Your task to perform on an android device: open chrome privacy settings Image 0: 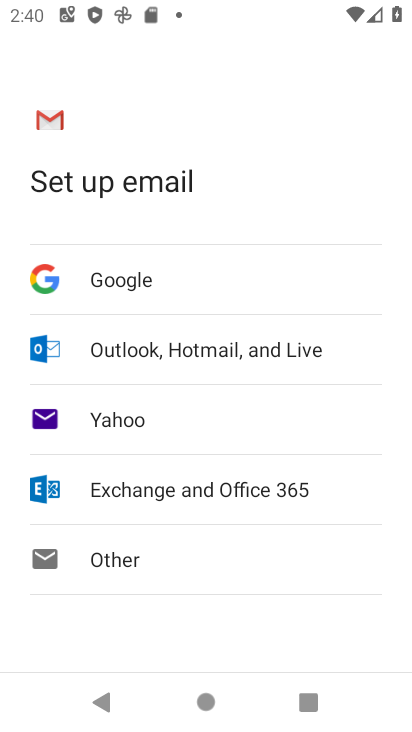
Step 0: press home button
Your task to perform on an android device: open chrome privacy settings Image 1: 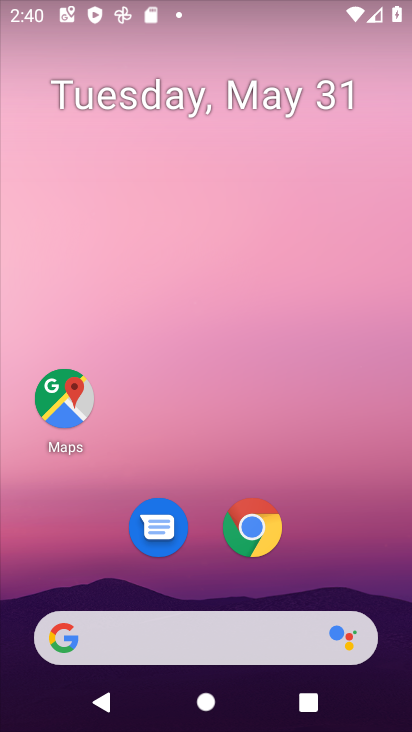
Step 1: drag from (357, 432) to (291, 90)
Your task to perform on an android device: open chrome privacy settings Image 2: 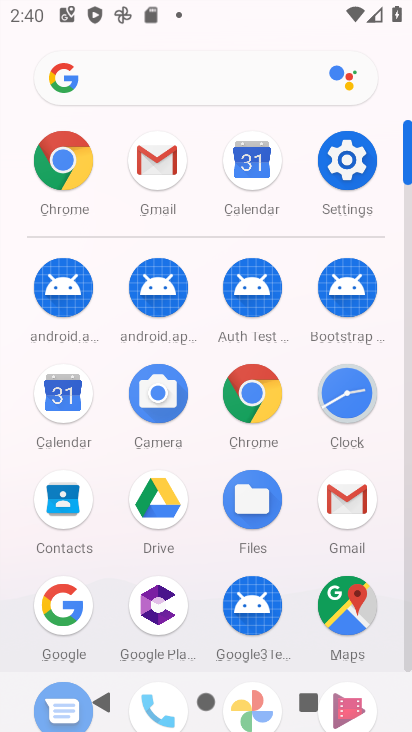
Step 2: click (354, 167)
Your task to perform on an android device: open chrome privacy settings Image 3: 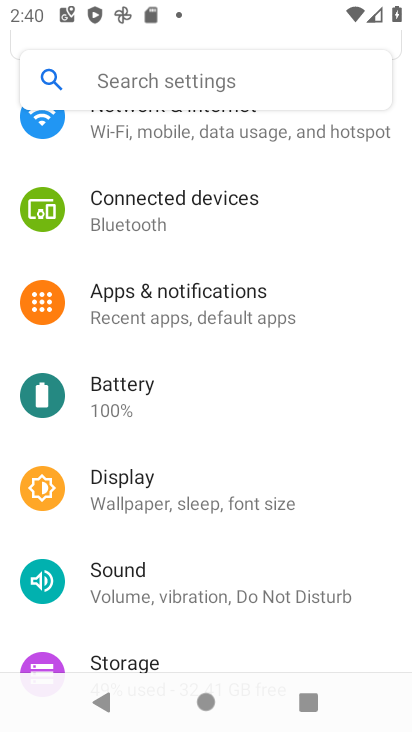
Step 3: drag from (197, 568) to (235, 160)
Your task to perform on an android device: open chrome privacy settings Image 4: 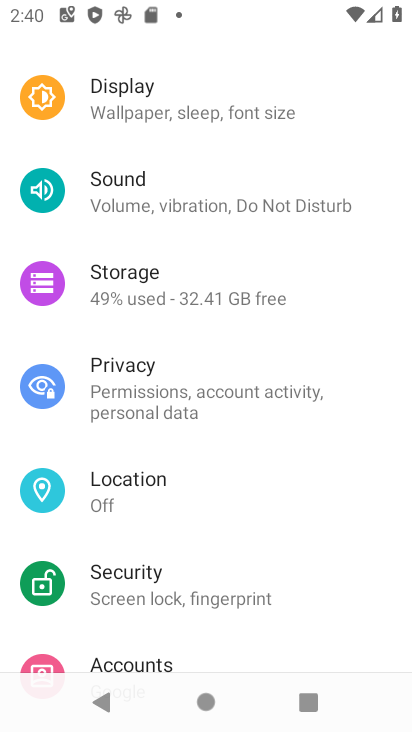
Step 4: click (167, 399)
Your task to perform on an android device: open chrome privacy settings Image 5: 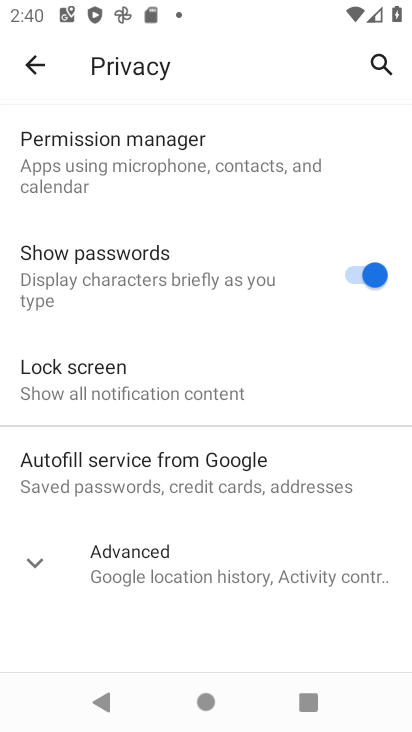
Step 5: task complete